Your task to perform on an android device: open app "Messenger Lite" Image 0: 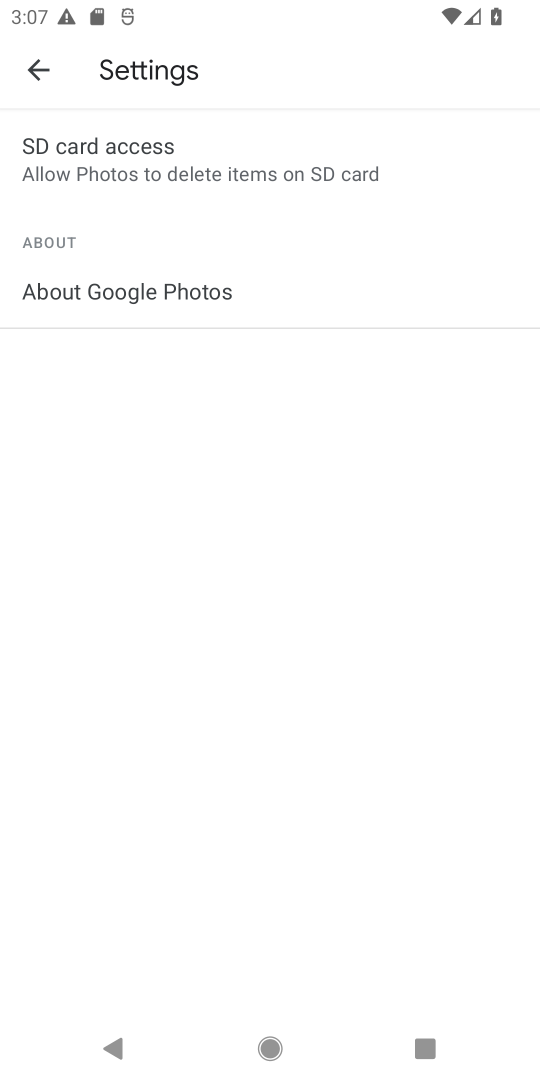
Step 0: press back button
Your task to perform on an android device: open app "Messenger Lite" Image 1: 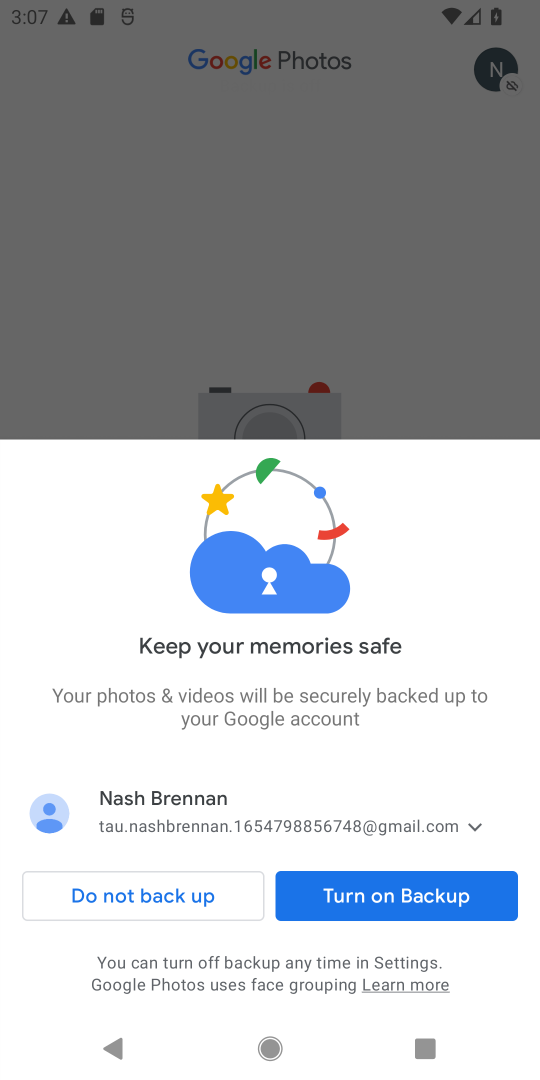
Step 1: press home button
Your task to perform on an android device: open app "Messenger Lite" Image 2: 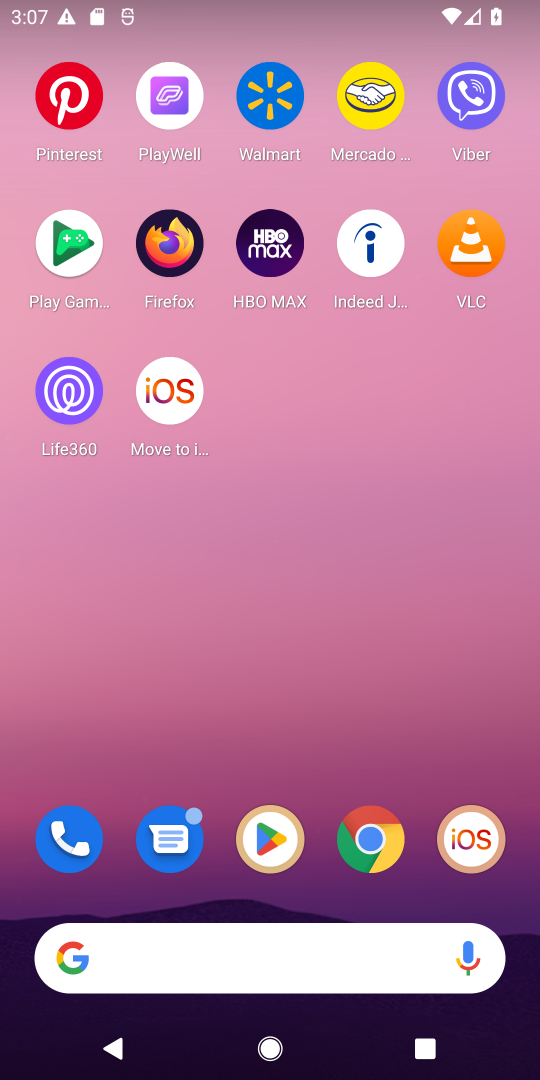
Step 2: click (258, 853)
Your task to perform on an android device: open app "Messenger Lite" Image 3: 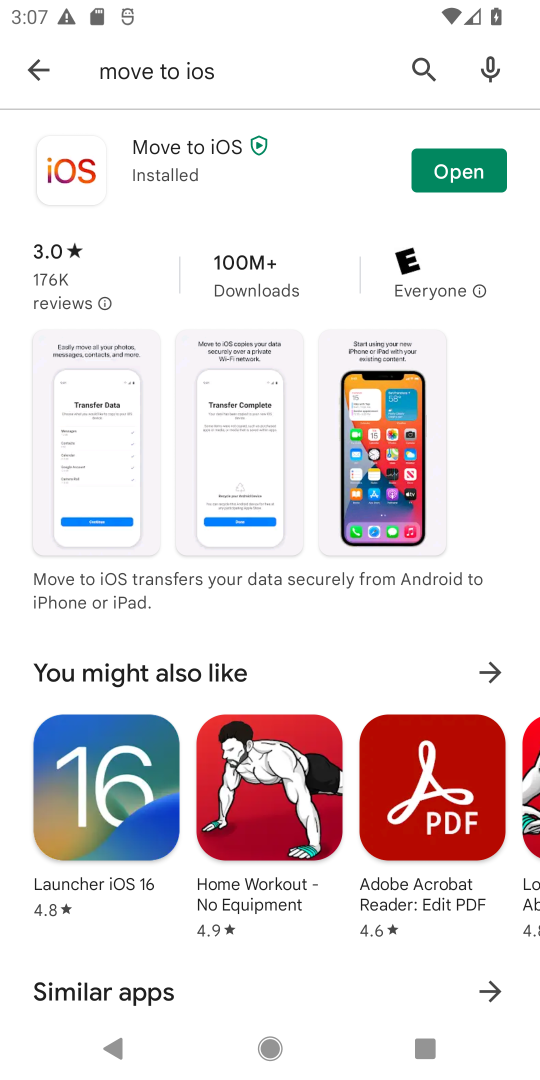
Step 3: click (33, 81)
Your task to perform on an android device: open app "Messenger Lite" Image 4: 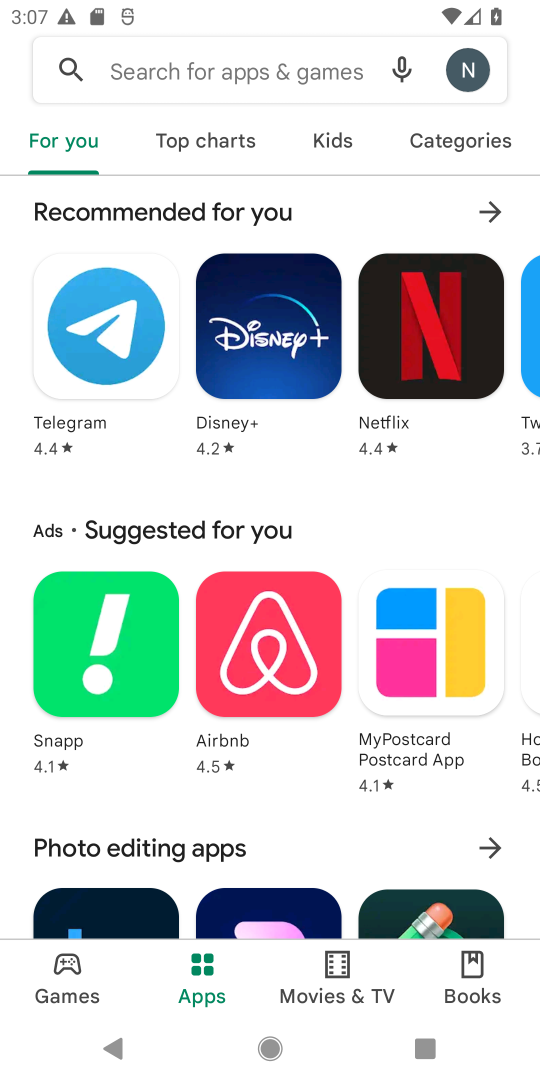
Step 4: click (144, 70)
Your task to perform on an android device: open app "Messenger Lite" Image 5: 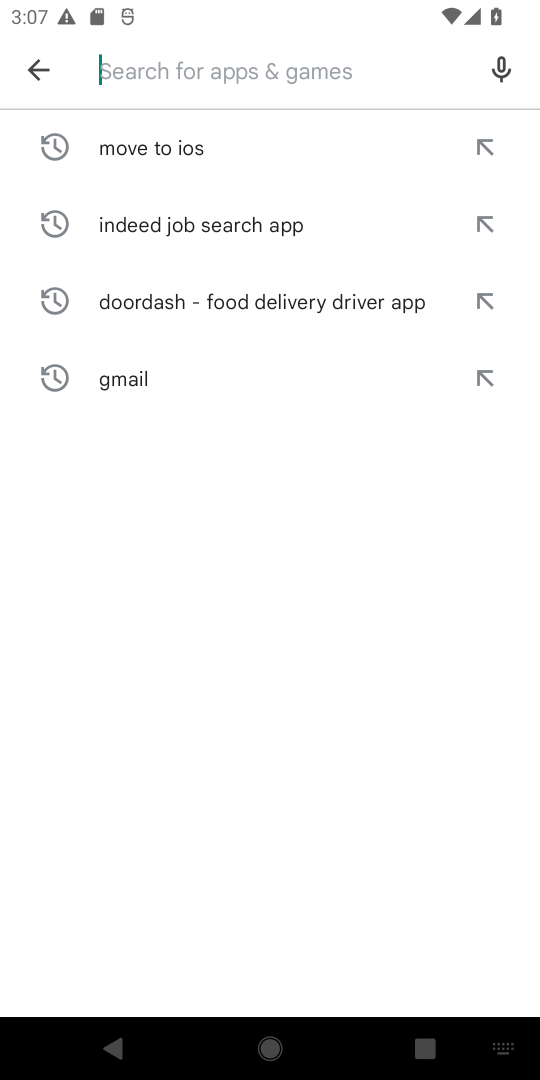
Step 5: type "Messenger Lite"
Your task to perform on an android device: open app "Messenger Lite" Image 6: 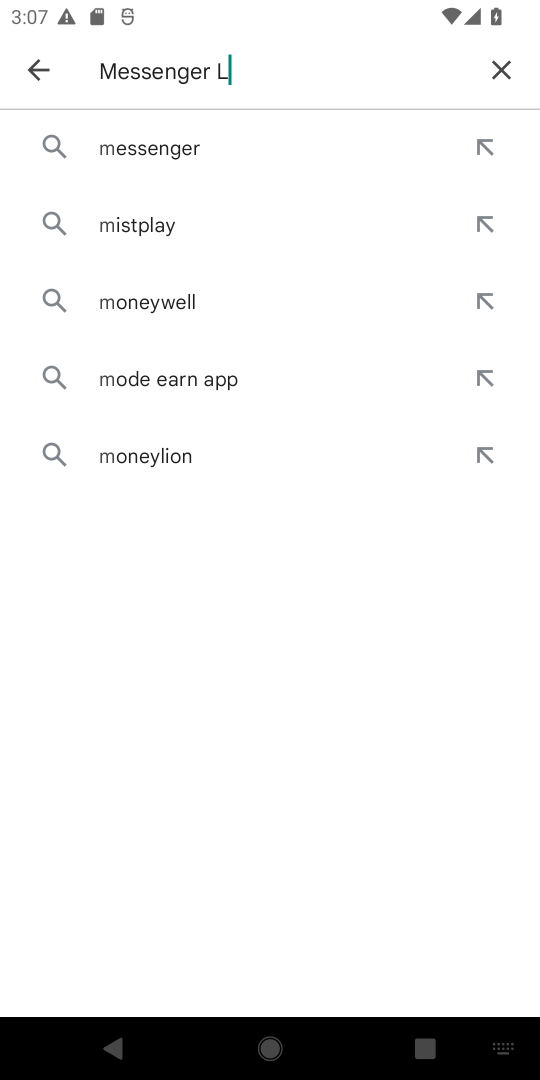
Step 6: type ""
Your task to perform on an android device: open app "Messenger Lite" Image 7: 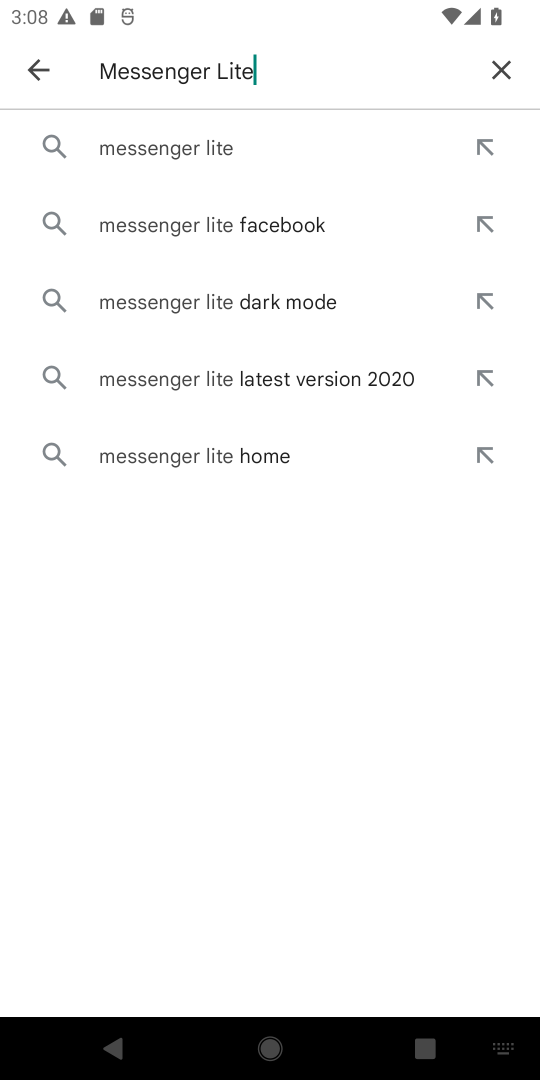
Step 7: click (86, 160)
Your task to perform on an android device: open app "Messenger Lite" Image 8: 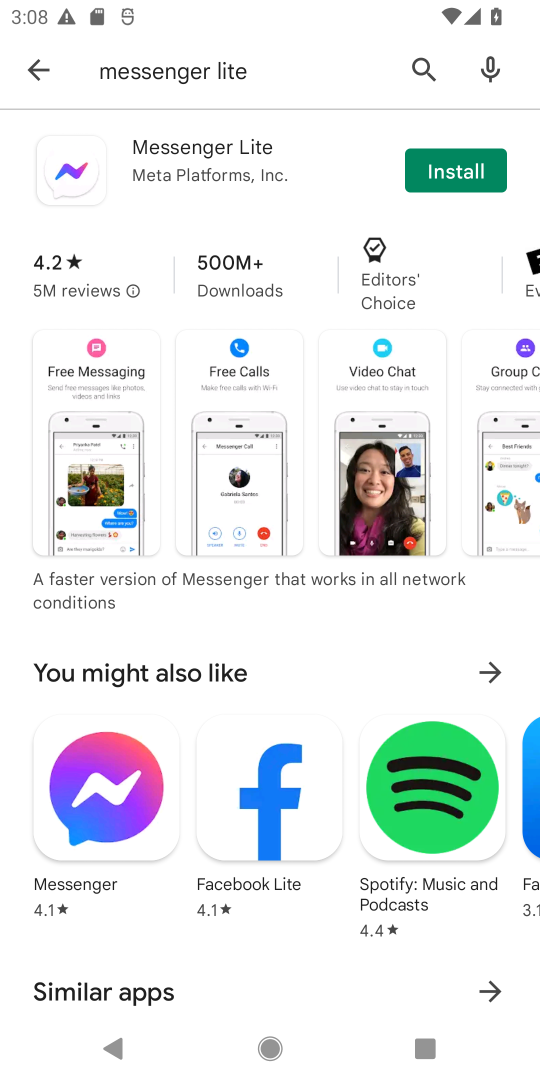
Step 8: task complete